Your task to perform on an android device: stop showing notifications on the lock screen Image 0: 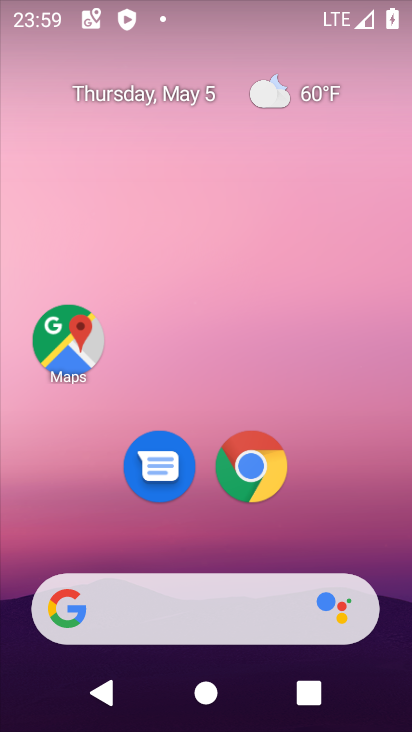
Step 0: drag from (207, 552) to (257, 163)
Your task to perform on an android device: stop showing notifications on the lock screen Image 1: 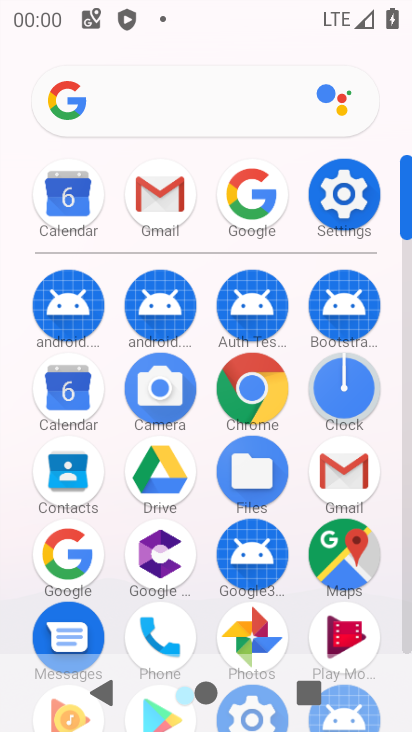
Step 1: click (344, 201)
Your task to perform on an android device: stop showing notifications on the lock screen Image 2: 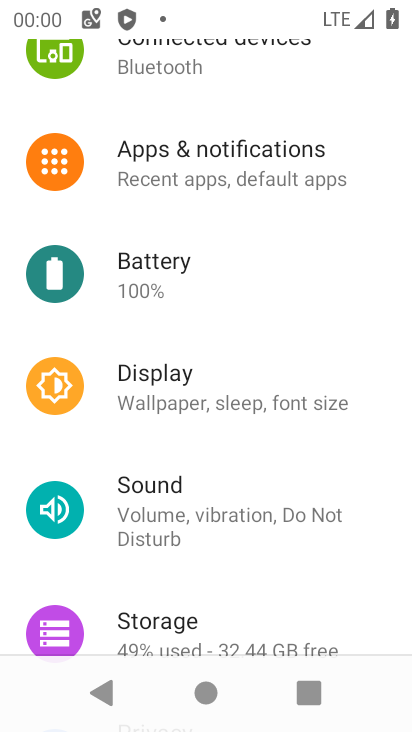
Step 2: drag from (173, 603) to (176, 216)
Your task to perform on an android device: stop showing notifications on the lock screen Image 3: 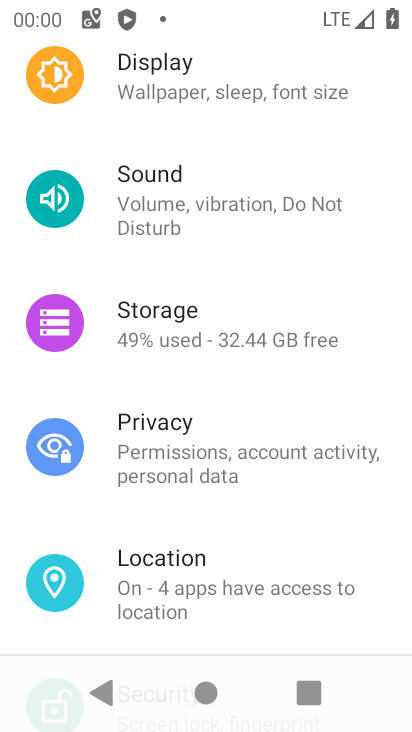
Step 3: click (179, 432)
Your task to perform on an android device: stop showing notifications on the lock screen Image 4: 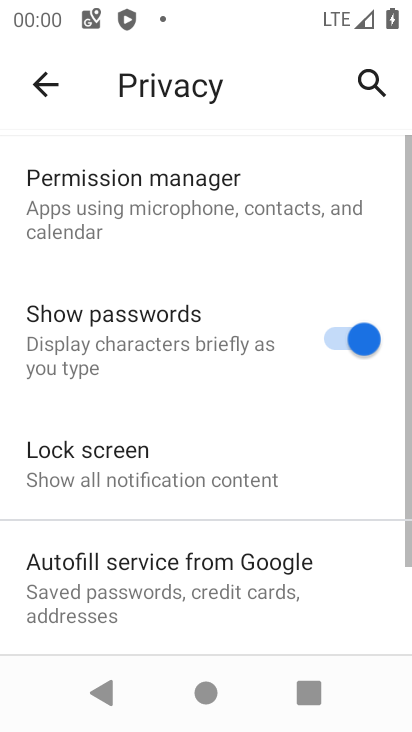
Step 4: click (94, 481)
Your task to perform on an android device: stop showing notifications on the lock screen Image 5: 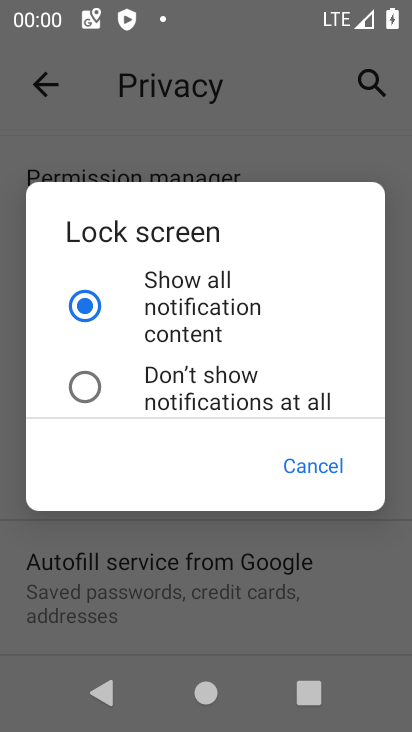
Step 5: click (82, 387)
Your task to perform on an android device: stop showing notifications on the lock screen Image 6: 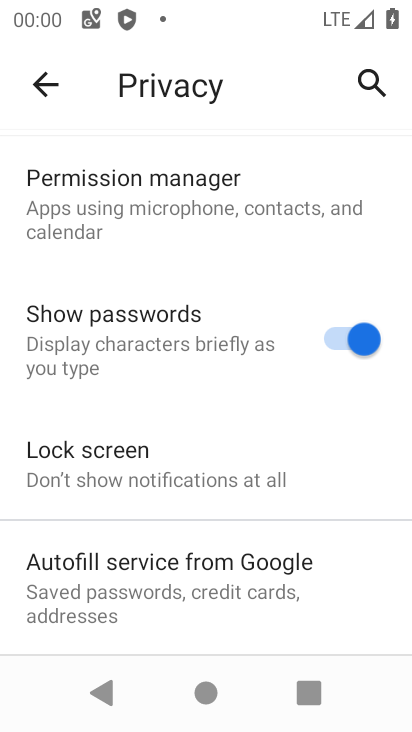
Step 6: task complete